Your task to perform on an android device: Go to accessibility settings Image 0: 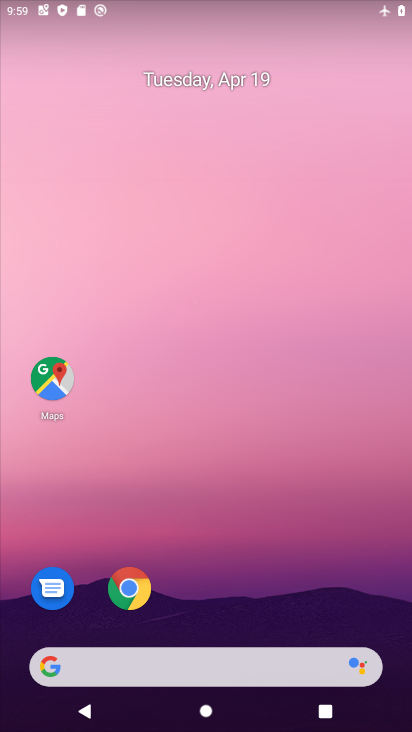
Step 0: drag from (217, 591) to (339, 36)
Your task to perform on an android device: Go to accessibility settings Image 1: 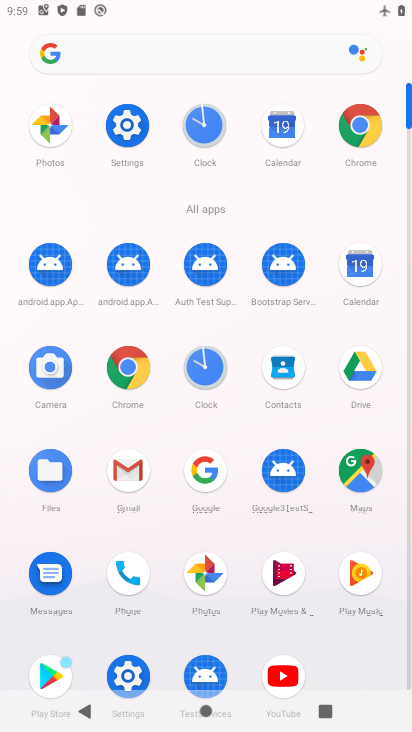
Step 1: click (131, 673)
Your task to perform on an android device: Go to accessibility settings Image 2: 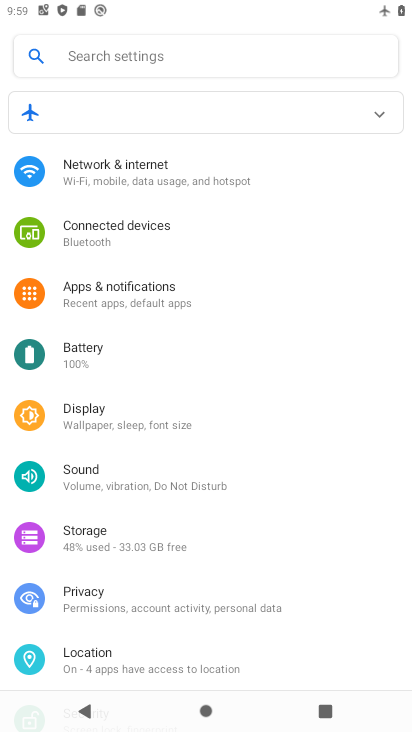
Step 2: drag from (152, 605) to (261, 289)
Your task to perform on an android device: Go to accessibility settings Image 3: 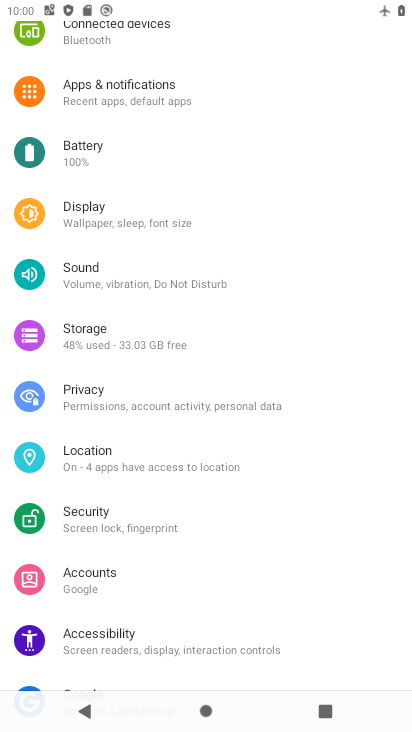
Step 3: click (116, 645)
Your task to perform on an android device: Go to accessibility settings Image 4: 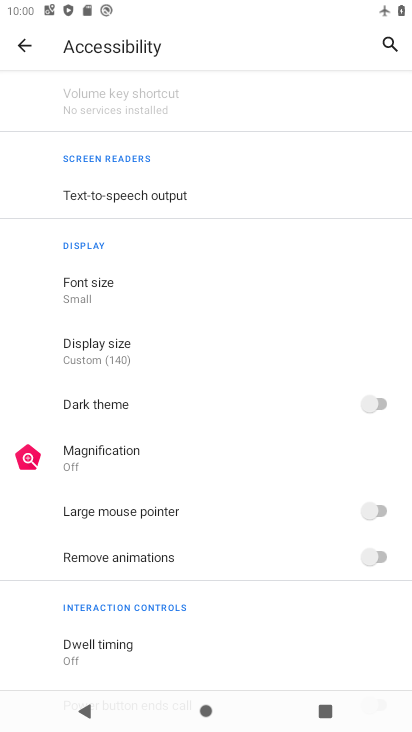
Step 4: task complete